Your task to perform on an android device: open device folders in google photos Image 0: 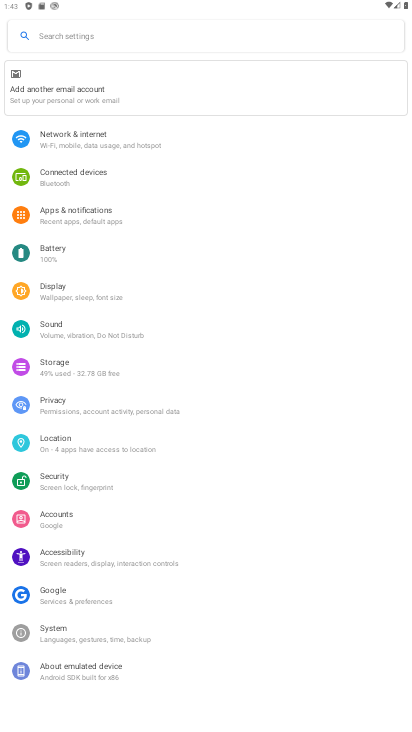
Step 0: press back button
Your task to perform on an android device: open device folders in google photos Image 1: 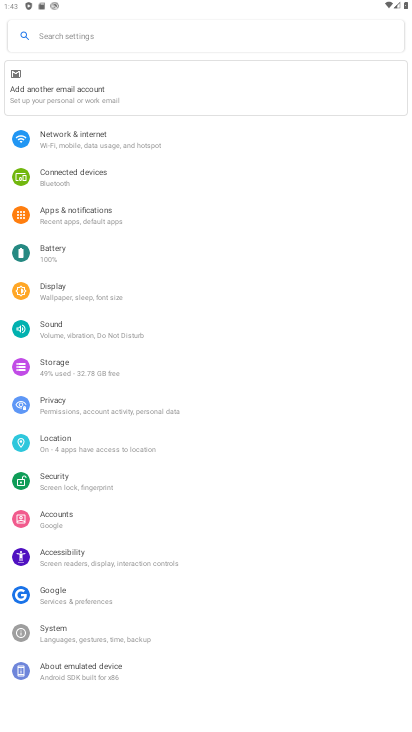
Step 1: press back button
Your task to perform on an android device: open device folders in google photos Image 2: 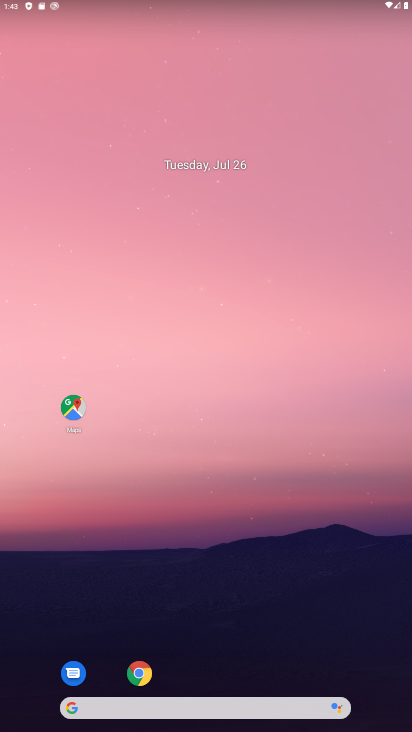
Step 2: drag from (221, 673) to (104, 62)
Your task to perform on an android device: open device folders in google photos Image 3: 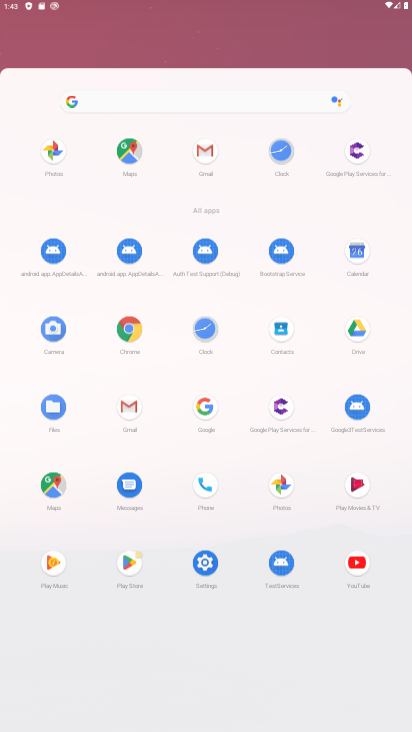
Step 3: drag from (156, 423) to (147, 254)
Your task to perform on an android device: open device folders in google photos Image 4: 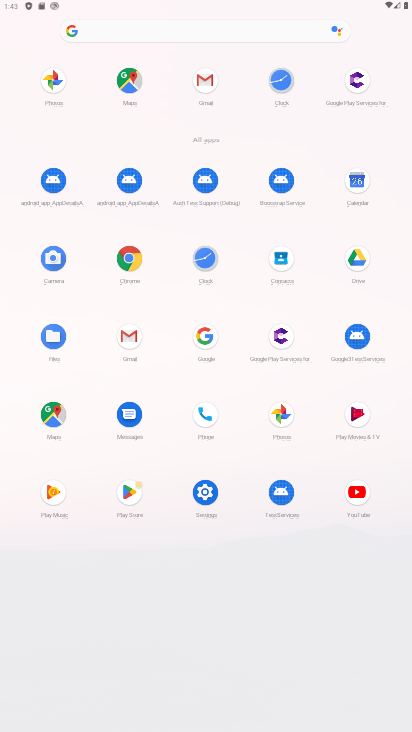
Step 4: drag from (235, 607) to (199, 173)
Your task to perform on an android device: open device folders in google photos Image 5: 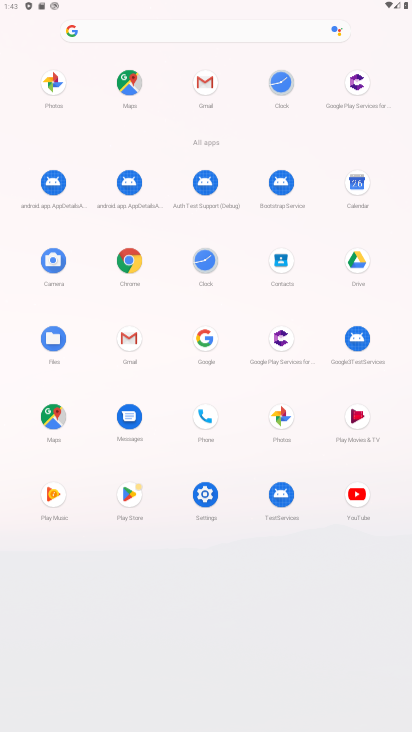
Step 5: drag from (169, 400) to (152, 278)
Your task to perform on an android device: open device folders in google photos Image 6: 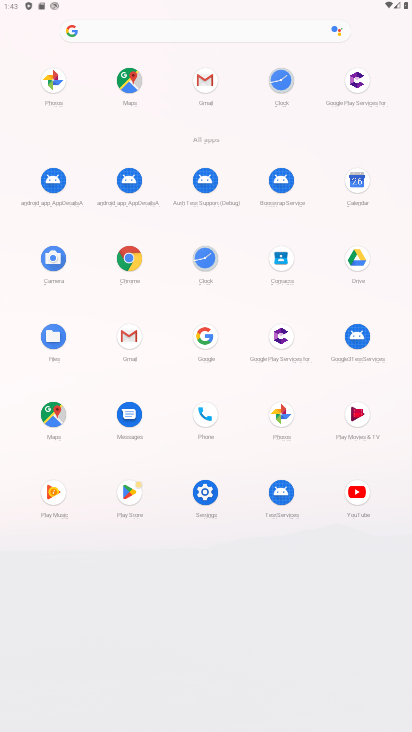
Step 6: click (283, 284)
Your task to perform on an android device: open device folders in google photos Image 7: 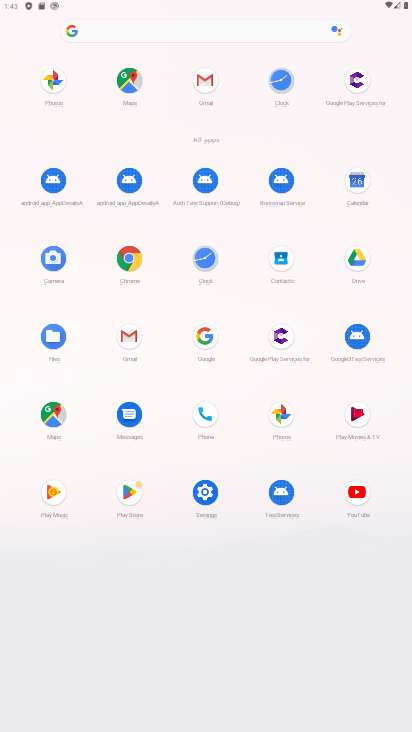
Step 7: click (289, 411)
Your task to perform on an android device: open device folders in google photos Image 8: 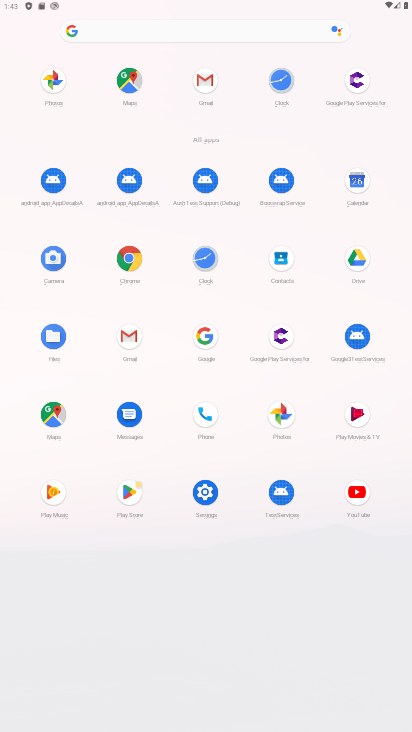
Step 8: click (289, 411)
Your task to perform on an android device: open device folders in google photos Image 9: 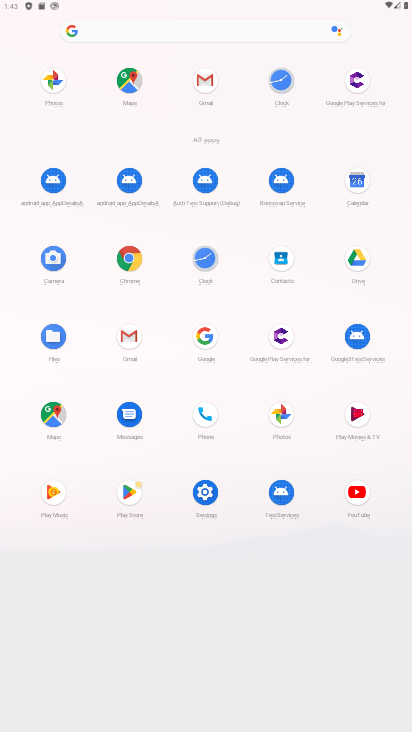
Step 9: click (288, 415)
Your task to perform on an android device: open device folders in google photos Image 10: 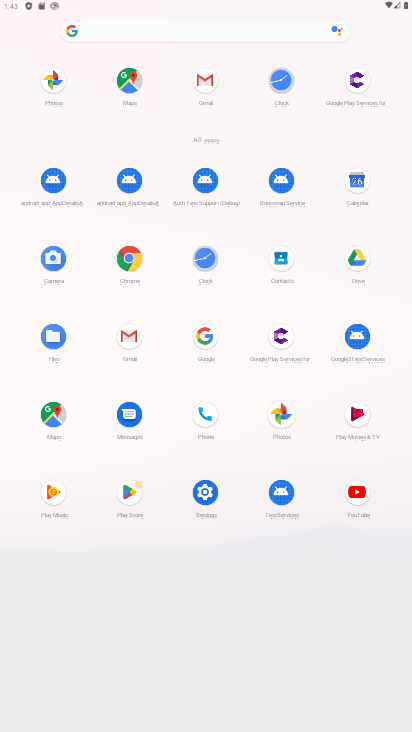
Step 10: click (287, 415)
Your task to perform on an android device: open device folders in google photos Image 11: 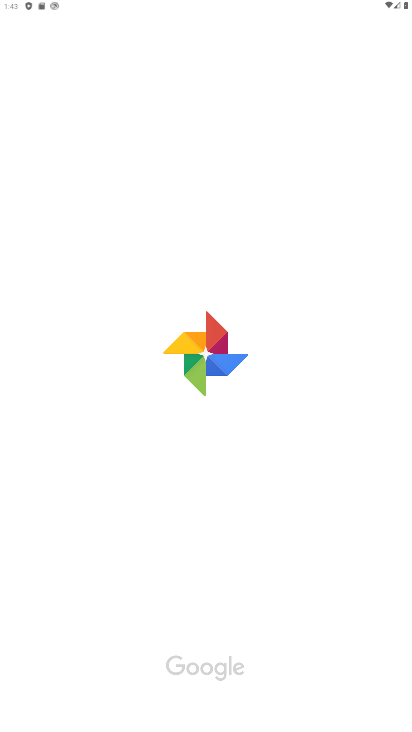
Step 11: click (290, 418)
Your task to perform on an android device: open device folders in google photos Image 12: 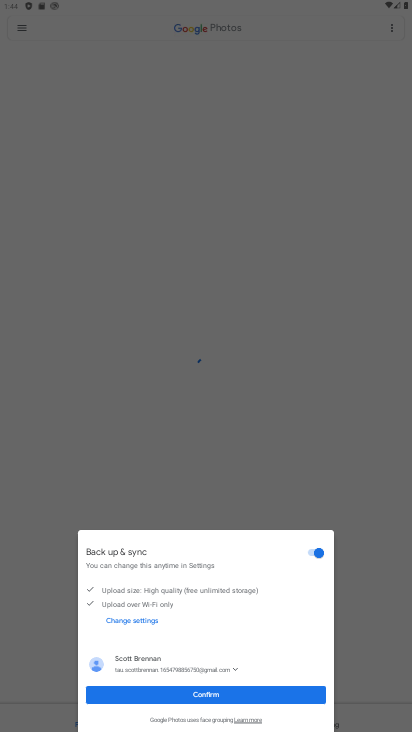
Step 12: click (232, 694)
Your task to perform on an android device: open device folders in google photos Image 13: 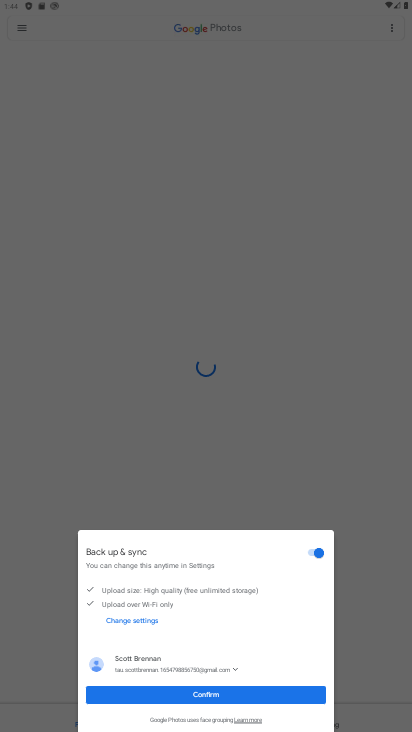
Step 13: click (232, 692)
Your task to perform on an android device: open device folders in google photos Image 14: 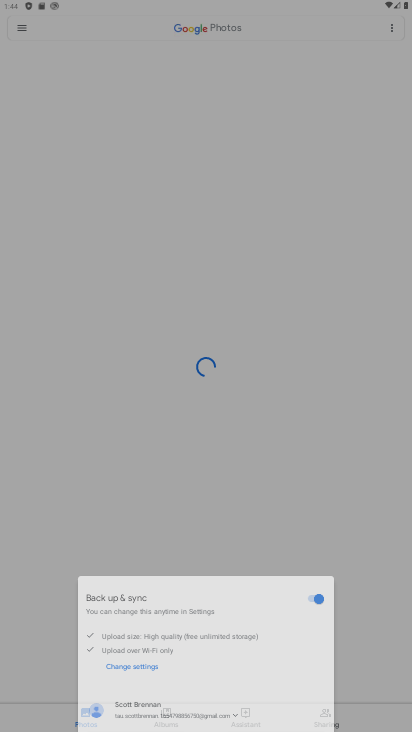
Step 14: click (236, 692)
Your task to perform on an android device: open device folders in google photos Image 15: 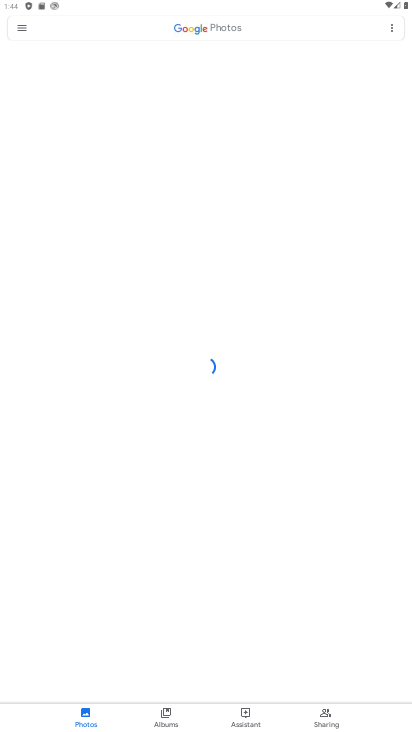
Step 15: click (238, 689)
Your task to perform on an android device: open device folders in google photos Image 16: 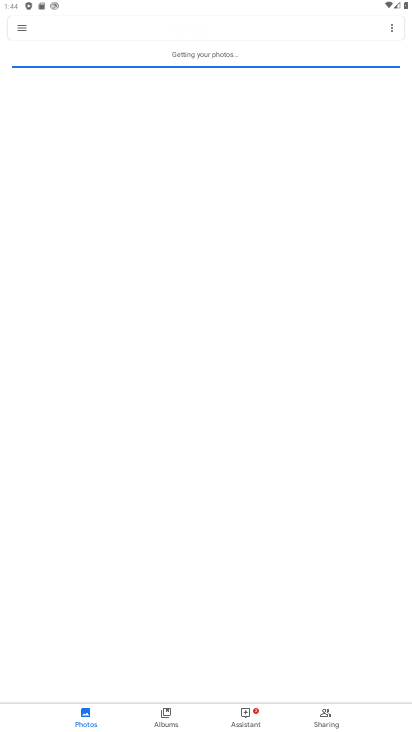
Step 16: click (16, 31)
Your task to perform on an android device: open device folders in google photos Image 17: 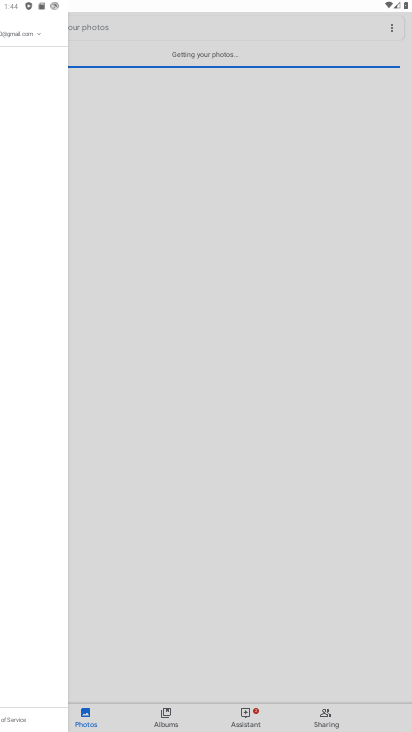
Step 17: click (16, 31)
Your task to perform on an android device: open device folders in google photos Image 18: 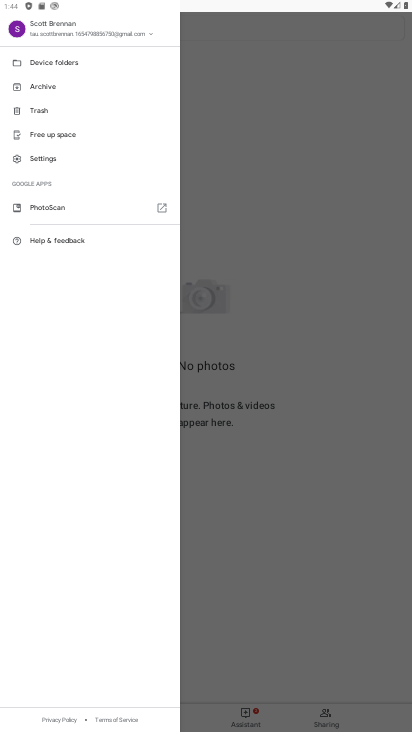
Step 18: click (34, 75)
Your task to perform on an android device: open device folders in google photos Image 19: 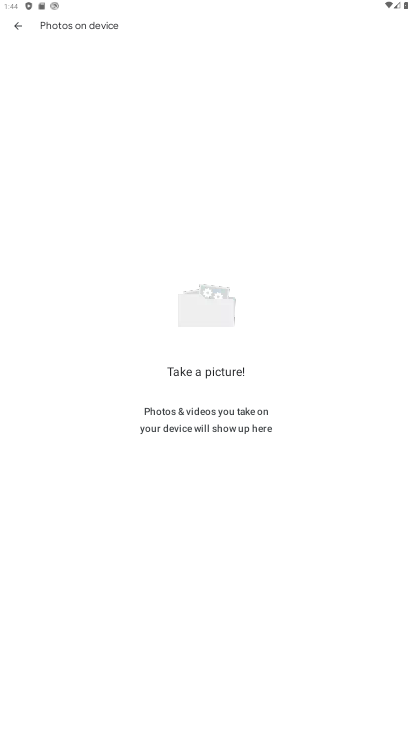
Step 19: task complete